Your task to perform on an android device: What's on my calendar tomorrow? Image 0: 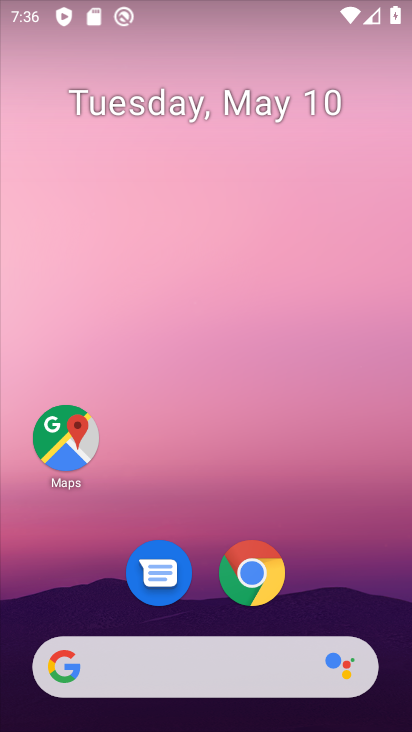
Step 0: drag from (359, 613) to (347, 159)
Your task to perform on an android device: What's on my calendar tomorrow? Image 1: 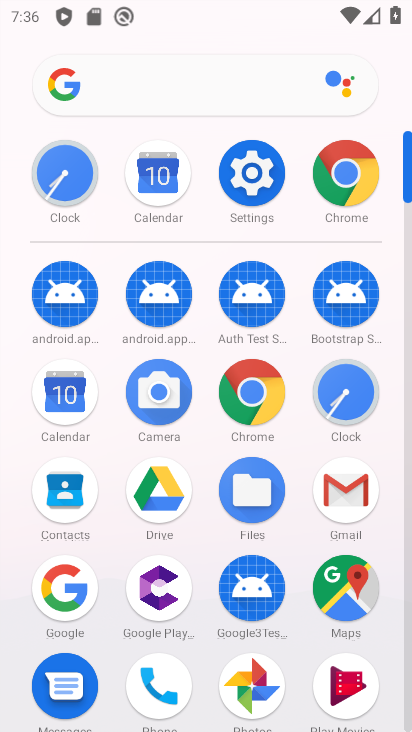
Step 1: click (42, 388)
Your task to perform on an android device: What's on my calendar tomorrow? Image 2: 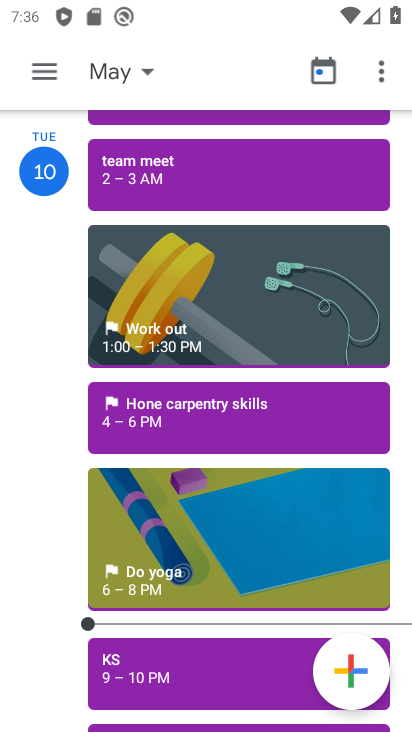
Step 2: click (123, 74)
Your task to perform on an android device: What's on my calendar tomorrow? Image 3: 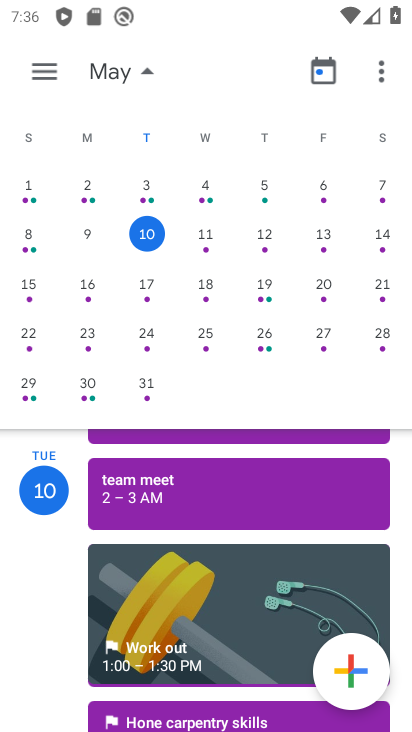
Step 3: click (206, 241)
Your task to perform on an android device: What's on my calendar tomorrow? Image 4: 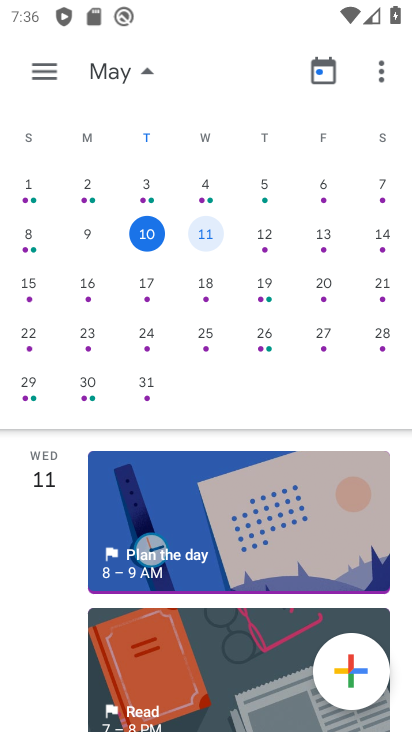
Step 4: task complete